Your task to perform on an android device: Add "macbook air" to the cart on target.com, then select checkout. Image 0: 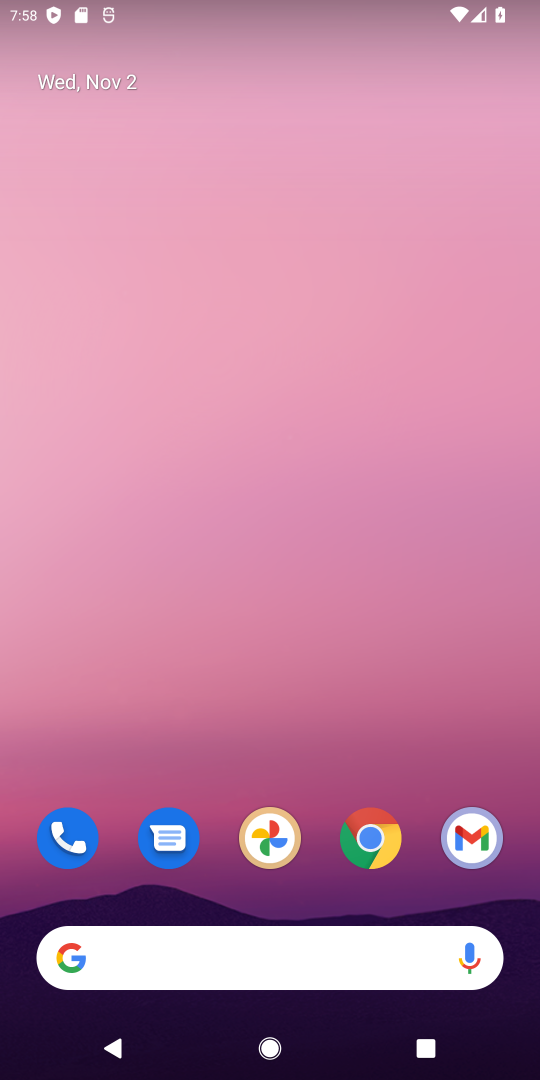
Step 0: click (356, 843)
Your task to perform on an android device: Add "macbook air" to the cart on target.com, then select checkout. Image 1: 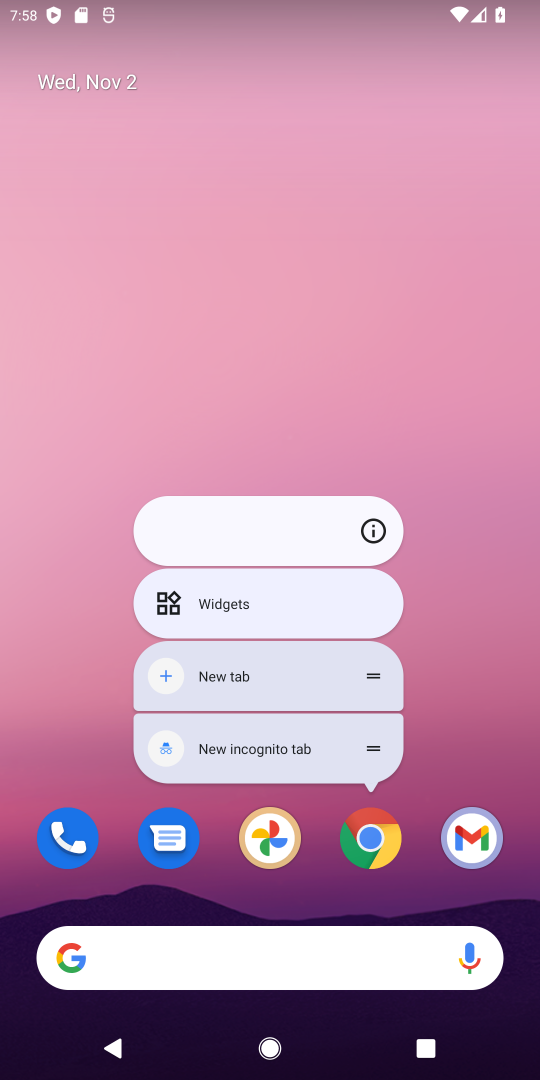
Step 1: click (368, 860)
Your task to perform on an android device: Add "macbook air" to the cart on target.com, then select checkout. Image 2: 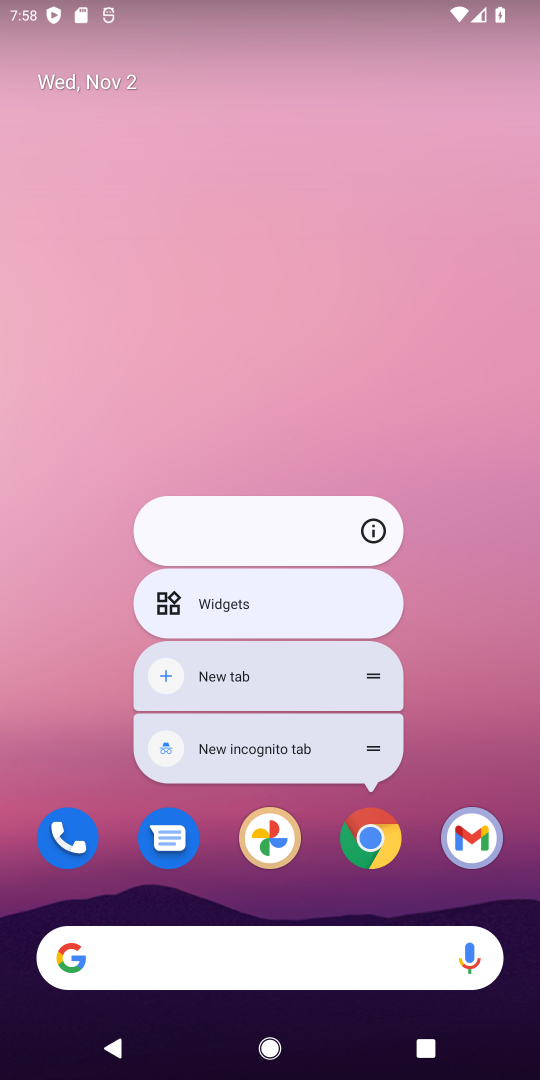
Step 2: click (390, 849)
Your task to perform on an android device: Add "macbook air" to the cart on target.com, then select checkout. Image 3: 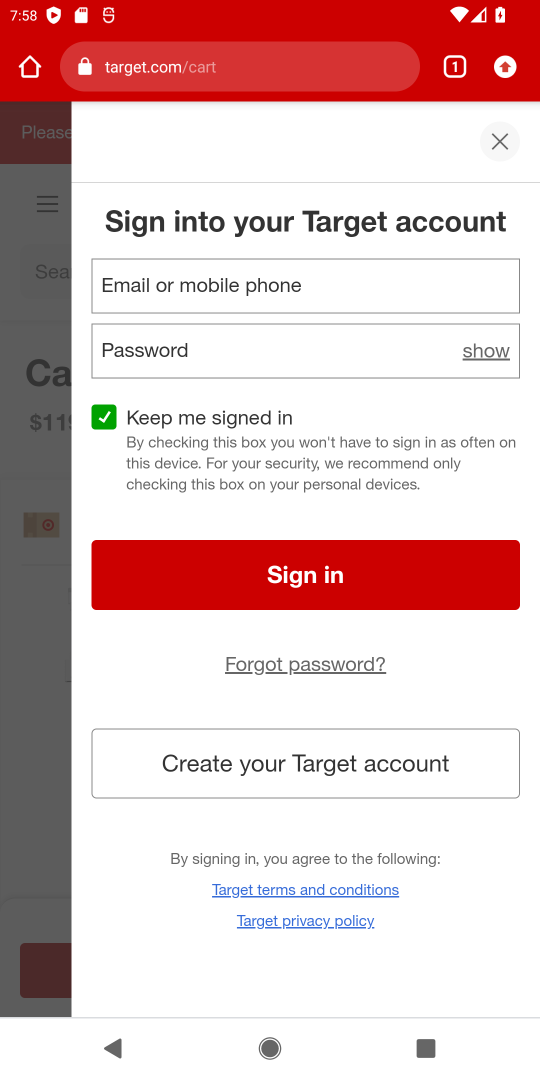
Step 3: click (174, 77)
Your task to perform on an android device: Add "macbook air" to the cart on target.com, then select checkout. Image 4: 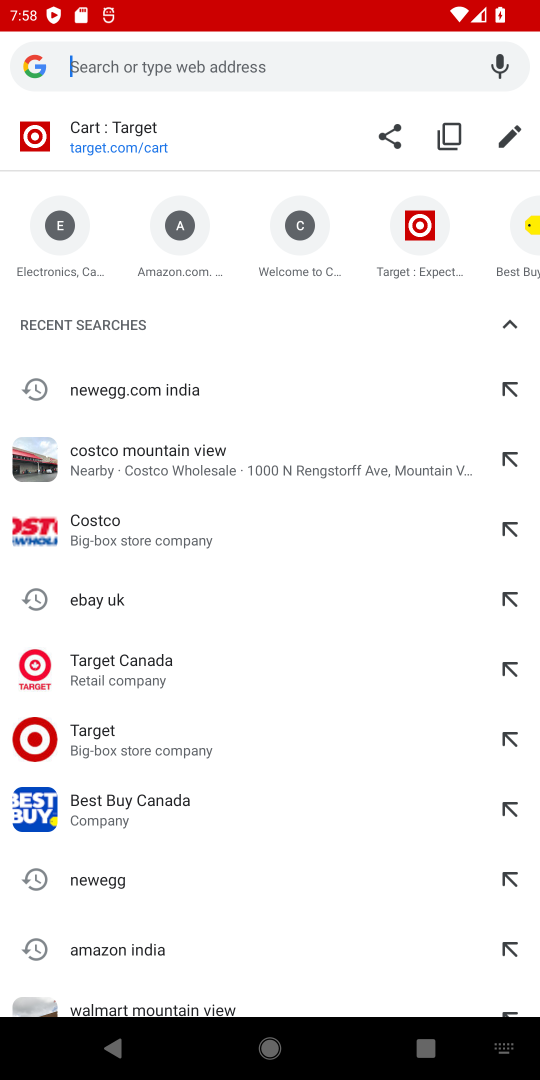
Step 4: type "target.com"
Your task to perform on an android device: Add "macbook air" to the cart on target.com, then select checkout. Image 5: 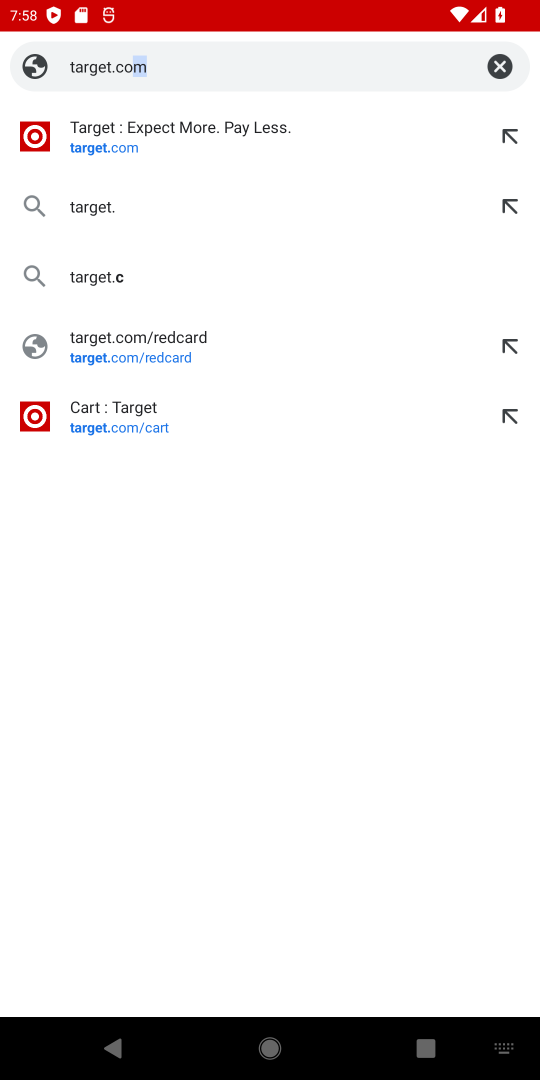
Step 5: type ""
Your task to perform on an android device: Add "macbook air" to the cart on target.com, then select checkout. Image 6: 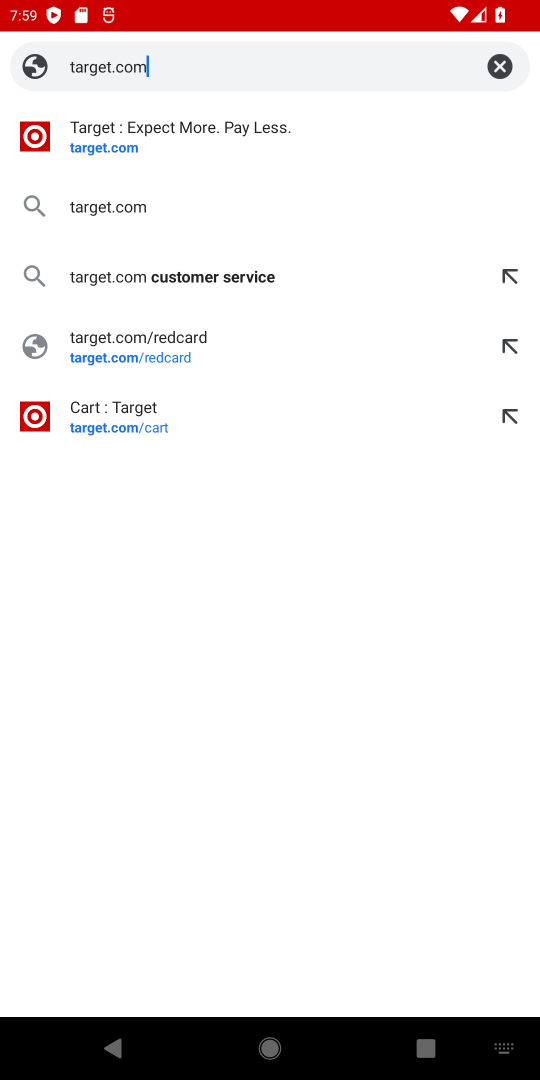
Step 6: press enter
Your task to perform on an android device: Add "macbook air" to the cart on target.com, then select checkout. Image 7: 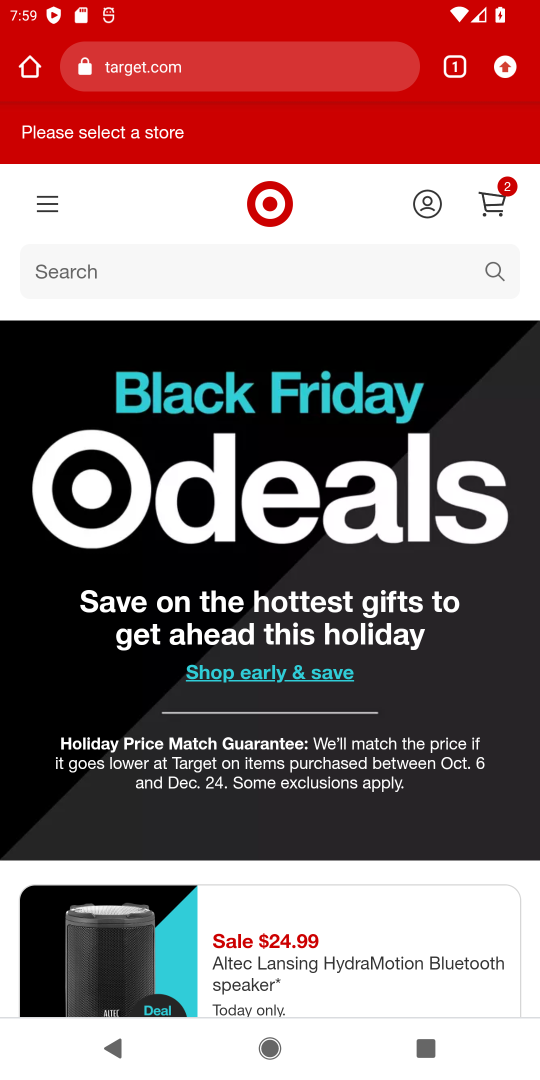
Step 7: click (271, 264)
Your task to perform on an android device: Add "macbook air" to the cart on target.com, then select checkout. Image 8: 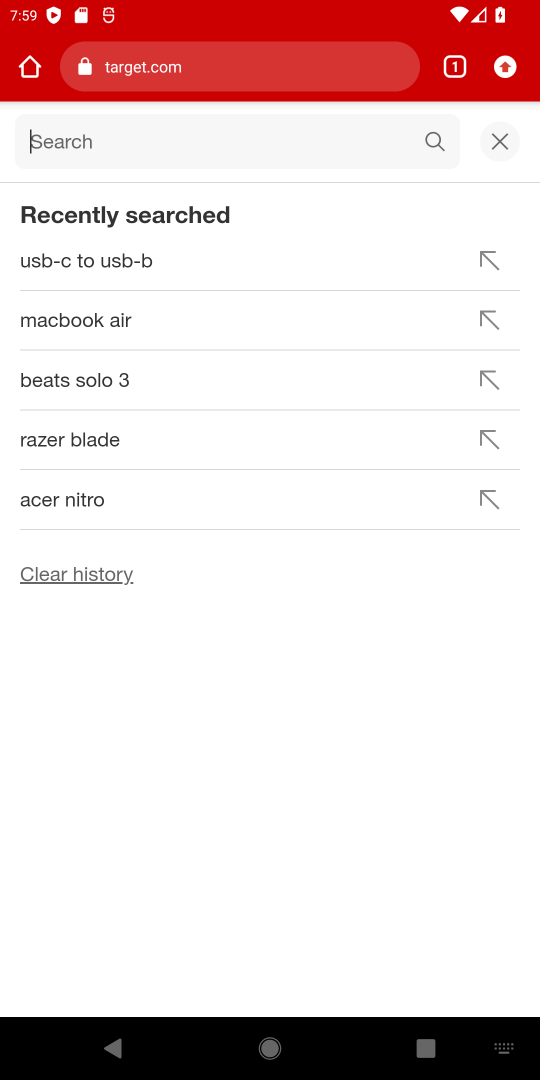
Step 8: type "macbook air"
Your task to perform on an android device: Add "macbook air" to the cart on target.com, then select checkout. Image 9: 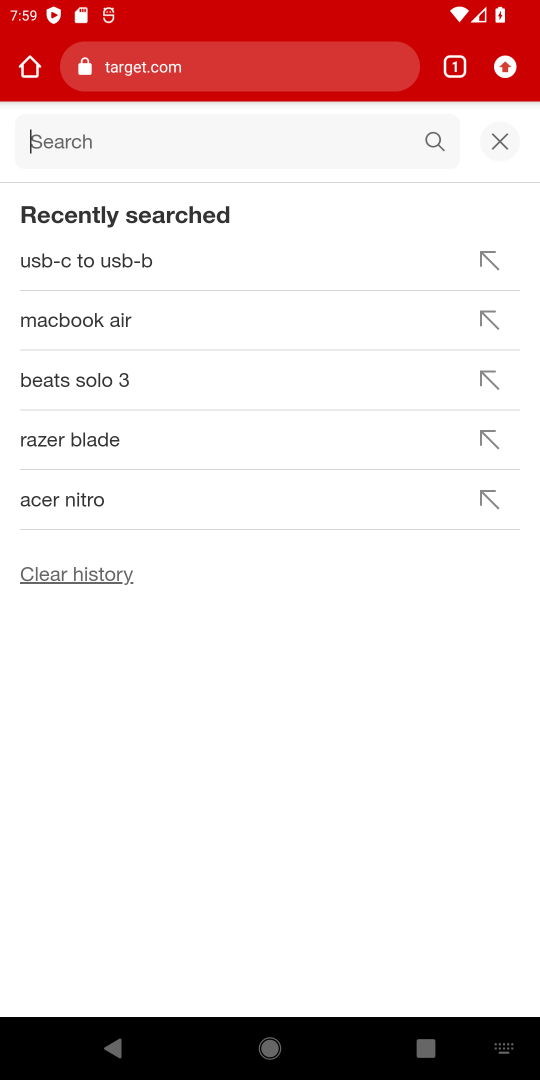
Step 9: type ""
Your task to perform on an android device: Add "macbook air" to the cart on target.com, then select checkout. Image 10: 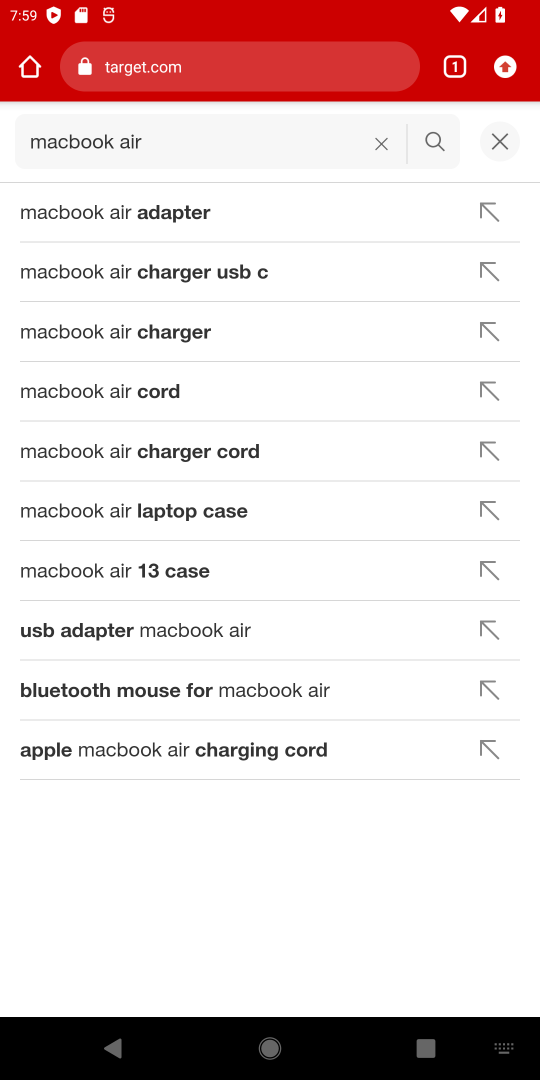
Step 10: press enter
Your task to perform on an android device: Add "macbook air" to the cart on target.com, then select checkout. Image 11: 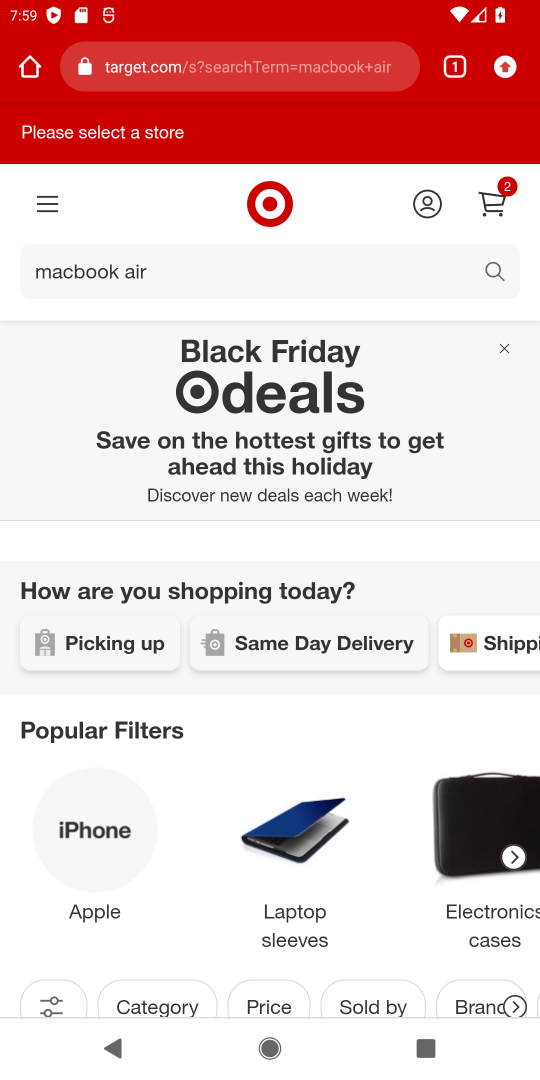
Step 11: click (454, 963)
Your task to perform on an android device: Add "macbook air" to the cart on target.com, then select checkout. Image 12: 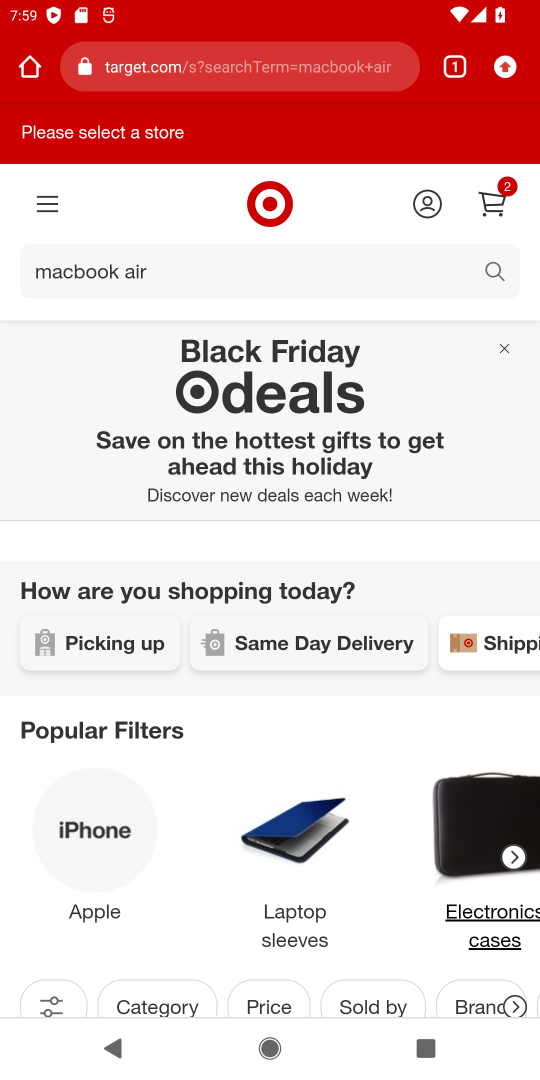
Step 12: drag from (241, 962) to (247, 574)
Your task to perform on an android device: Add "macbook air" to the cart on target.com, then select checkout. Image 13: 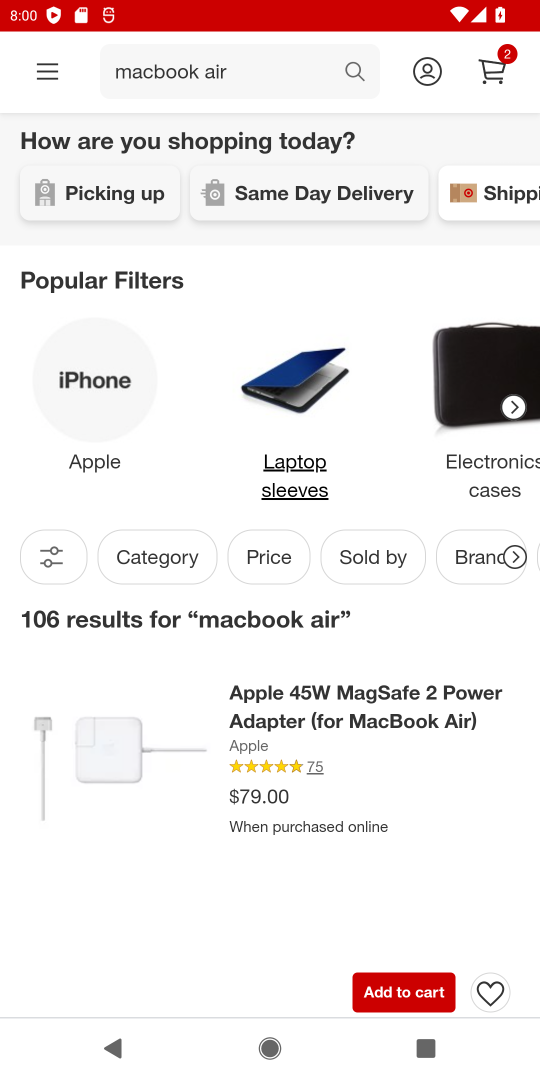
Step 13: click (305, 736)
Your task to perform on an android device: Add "macbook air" to the cart on target.com, then select checkout. Image 14: 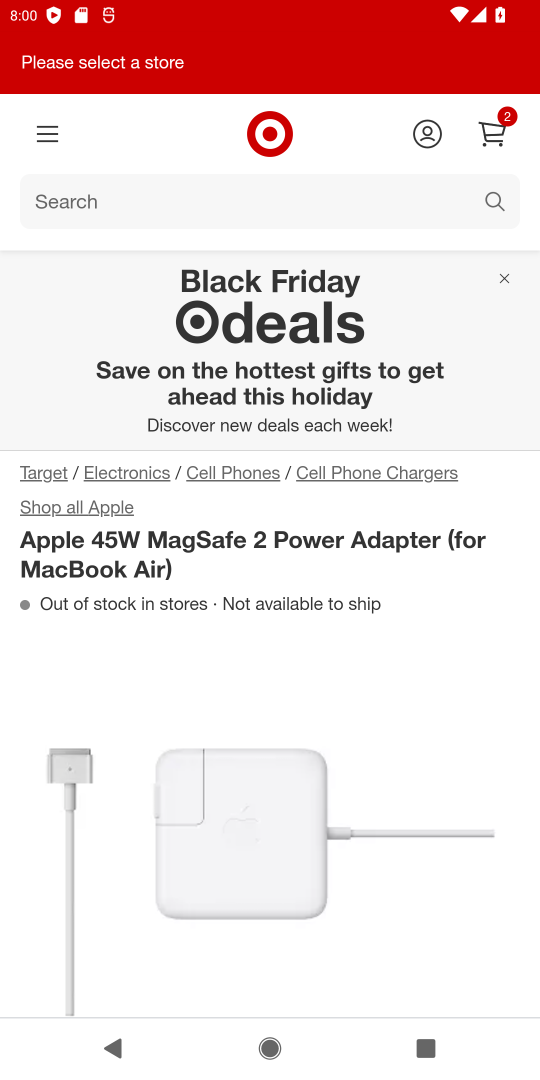
Step 14: task complete